Your task to perform on an android device: Open Youtube and go to the subscriptions tab Image 0: 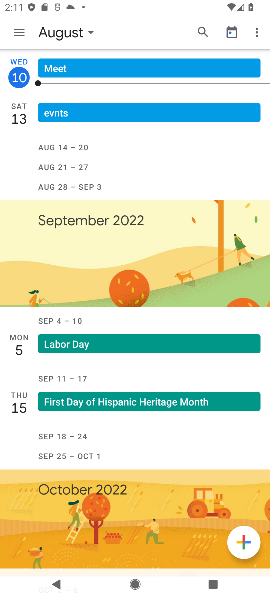
Step 0: press home button
Your task to perform on an android device: Open Youtube and go to the subscriptions tab Image 1: 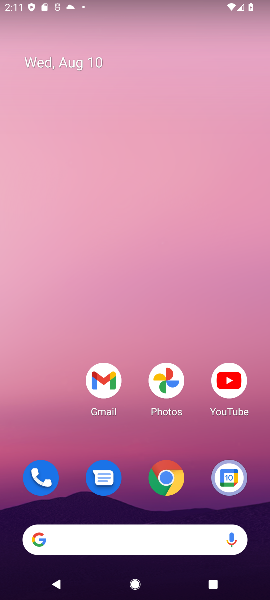
Step 1: click (231, 402)
Your task to perform on an android device: Open Youtube and go to the subscriptions tab Image 2: 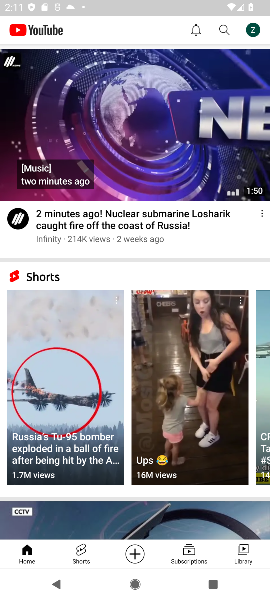
Step 2: task complete